Your task to perform on an android device: turn off translation in the chrome app Image 0: 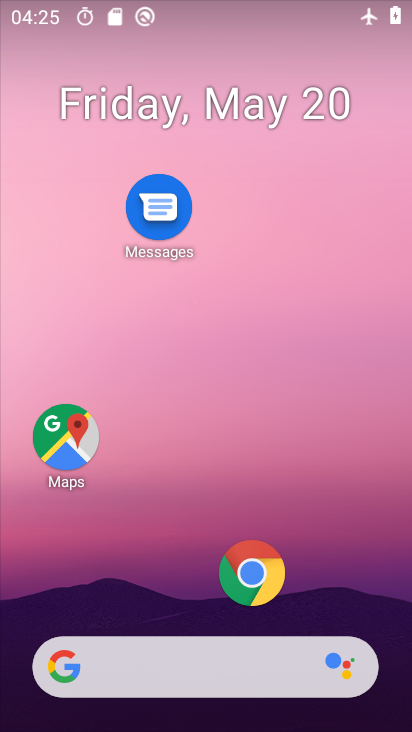
Step 0: click (196, 624)
Your task to perform on an android device: turn off translation in the chrome app Image 1: 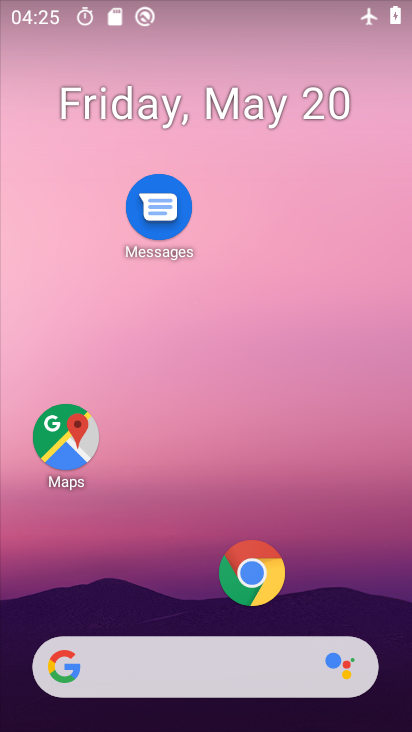
Step 1: click (263, 555)
Your task to perform on an android device: turn off translation in the chrome app Image 2: 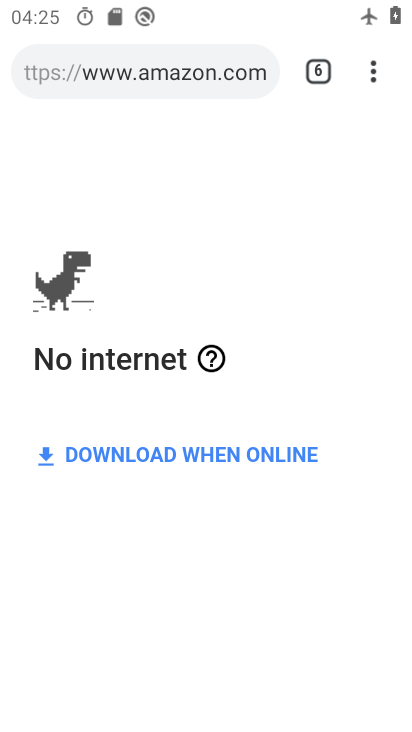
Step 2: click (364, 71)
Your task to perform on an android device: turn off translation in the chrome app Image 3: 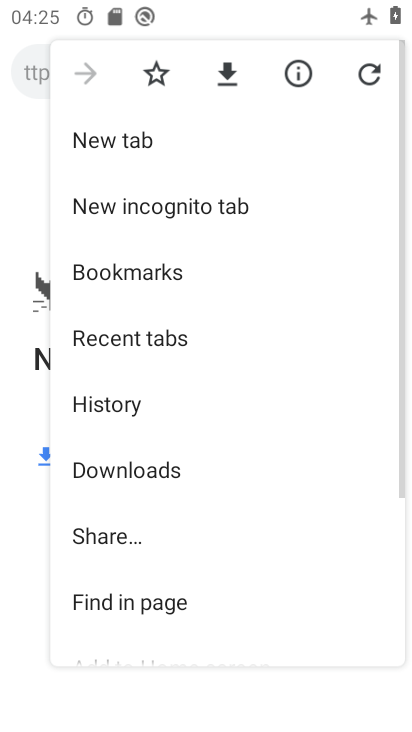
Step 3: drag from (194, 574) to (215, 187)
Your task to perform on an android device: turn off translation in the chrome app Image 4: 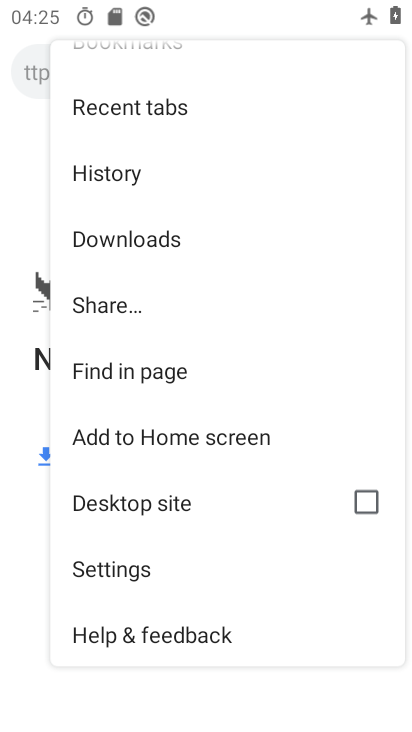
Step 4: click (144, 577)
Your task to perform on an android device: turn off translation in the chrome app Image 5: 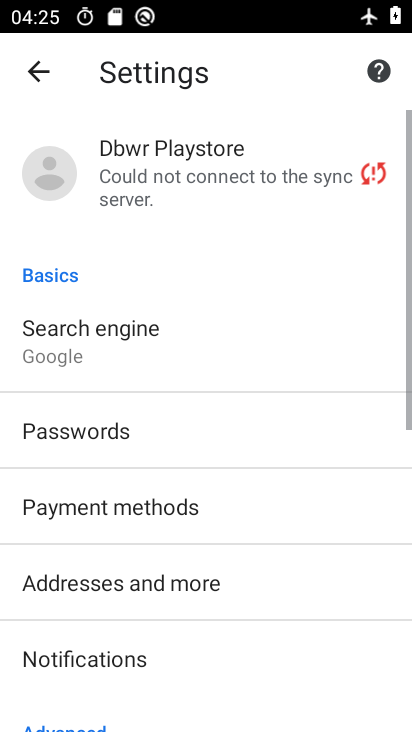
Step 5: drag from (167, 621) to (238, 313)
Your task to perform on an android device: turn off translation in the chrome app Image 6: 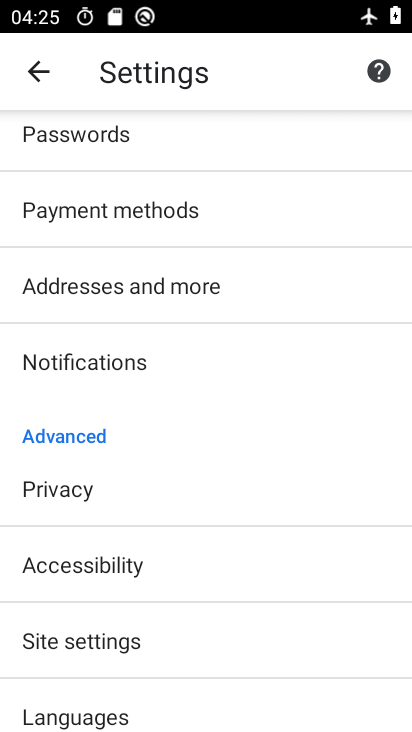
Step 6: drag from (206, 638) to (223, 372)
Your task to perform on an android device: turn off translation in the chrome app Image 7: 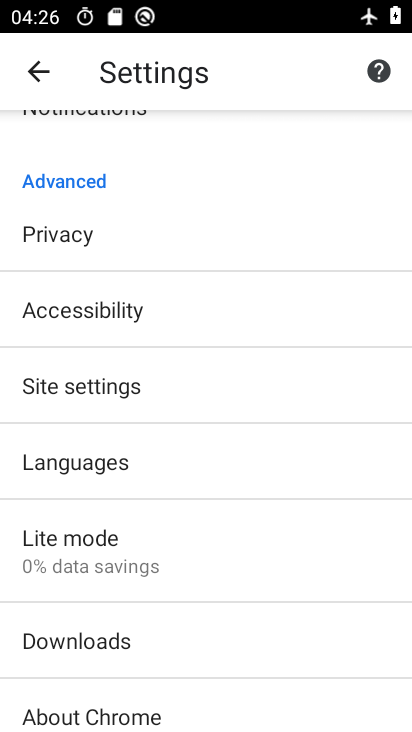
Step 7: drag from (174, 671) to (234, 393)
Your task to perform on an android device: turn off translation in the chrome app Image 8: 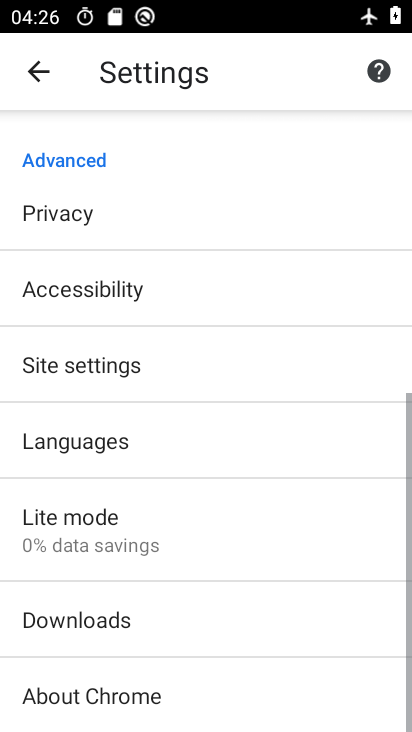
Step 8: click (195, 348)
Your task to perform on an android device: turn off translation in the chrome app Image 9: 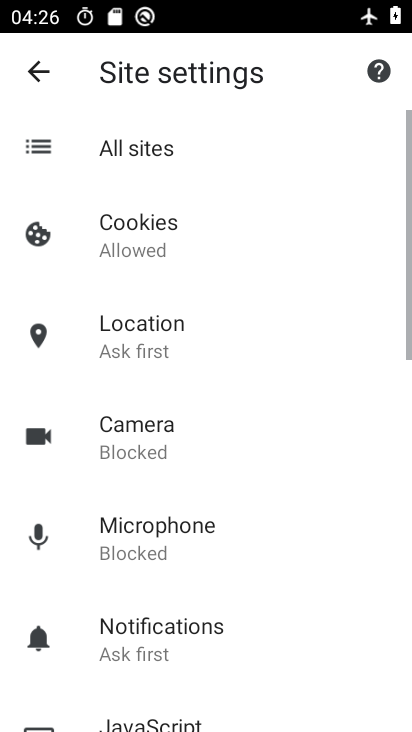
Step 9: click (195, 348)
Your task to perform on an android device: turn off translation in the chrome app Image 10: 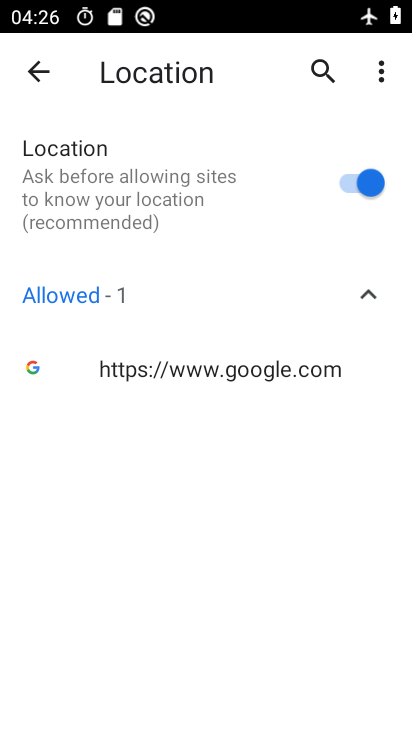
Step 10: click (338, 187)
Your task to perform on an android device: turn off translation in the chrome app Image 11: 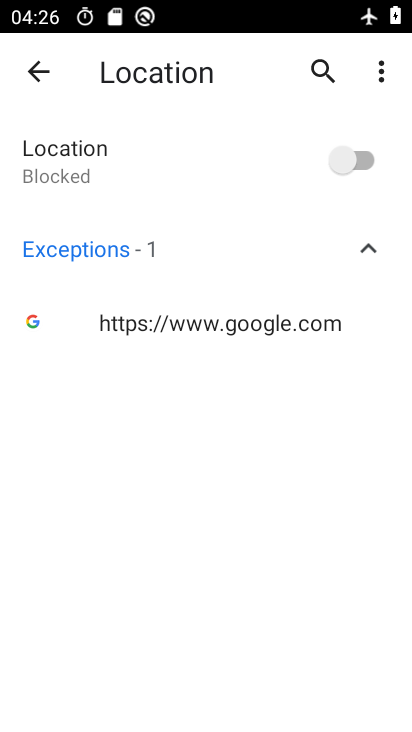
Step 11: task complete